Your task to perform on an android device: toggle pop-ups in chrome Image 0: 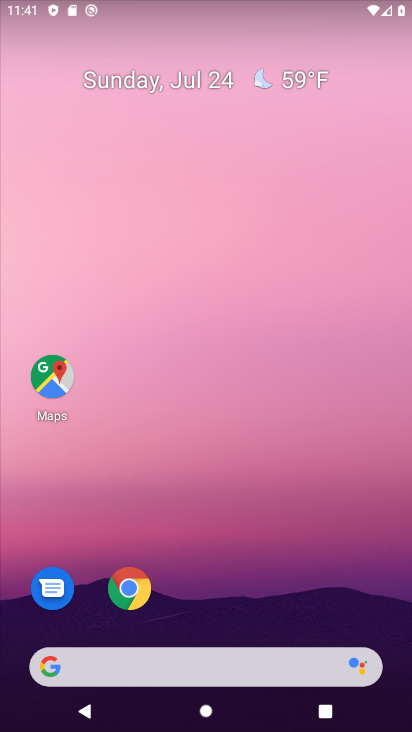
Step 0: drag from (393, 646) to (212, 7)
Your task to perform on an android device: toggle pop-ups in chrome Image 1: 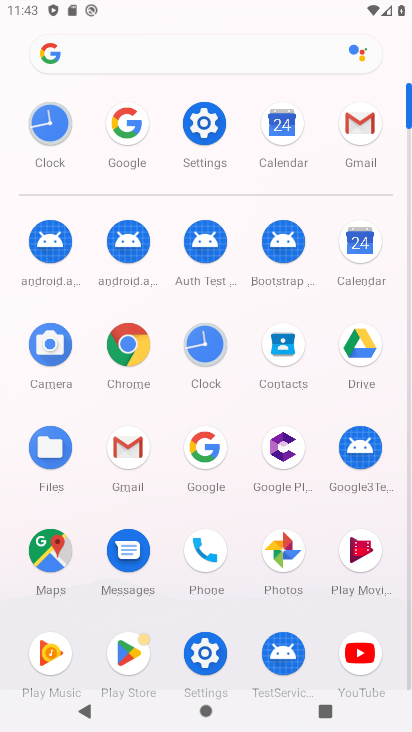
Step 1: click (127, 353)
Your task to perform on an android device: toggle pop-ups in chrome Image 2: 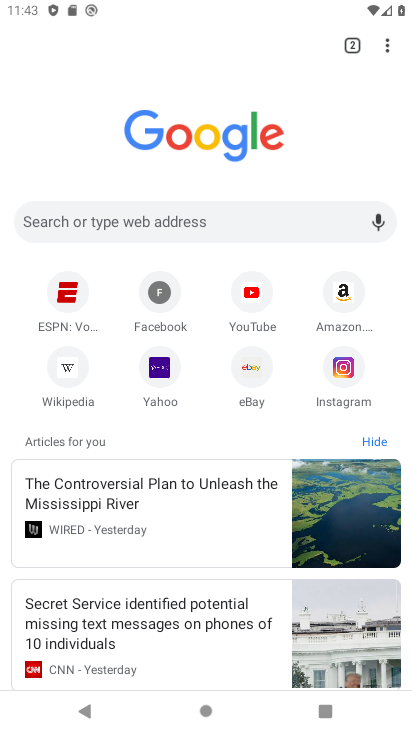
Step 2: click (387, 45)
Your task to perform on an android device: toggle pop-ups in chrome Image 3: 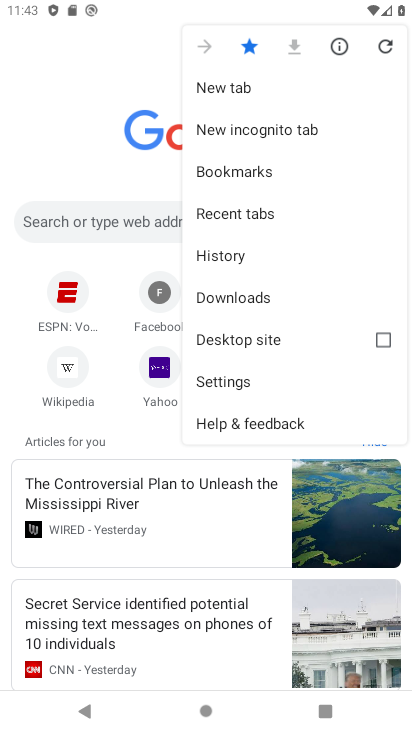
Step 3: click (241, 382)
Your task to perform on an android device: toggle pop-ups in chrome Image 4: 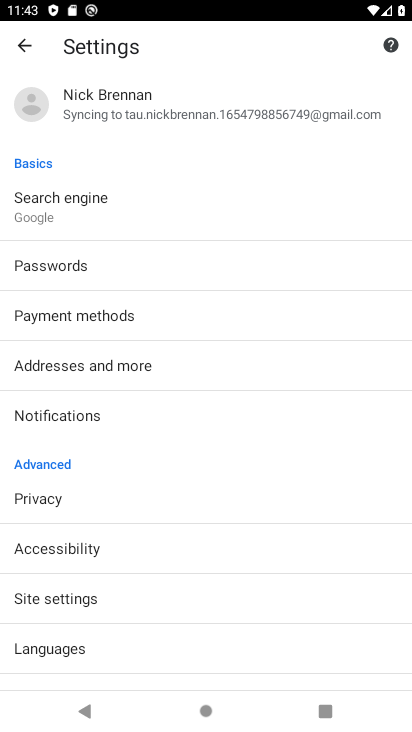
Step 4: click (104, 591)
Your task to perform on an android device: toggle pop-ups in chrome Image 5: 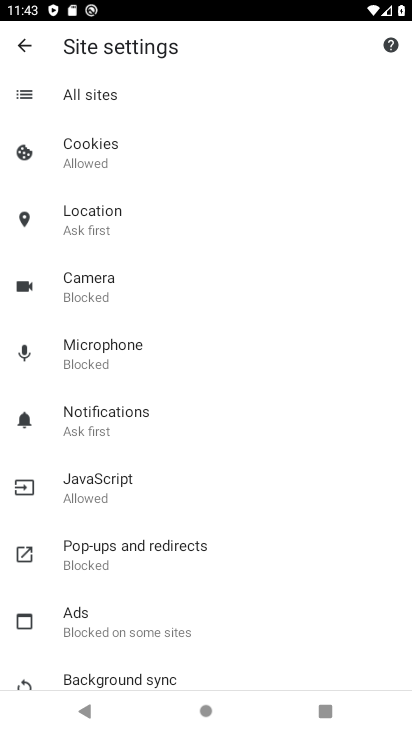
Step 5: click (131, 561)
Your task to perform on an android device: toggle pop-ups in chrome Image 6: 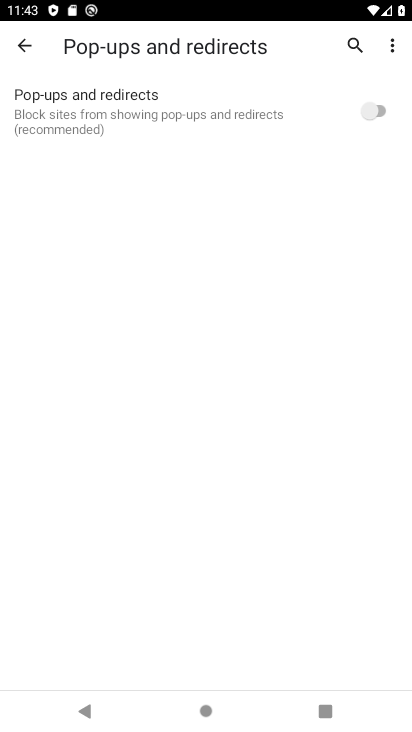
Step 6: click (362, 118)
Your task to perform on an android device: toggle pop-ups in chrome Image 7: 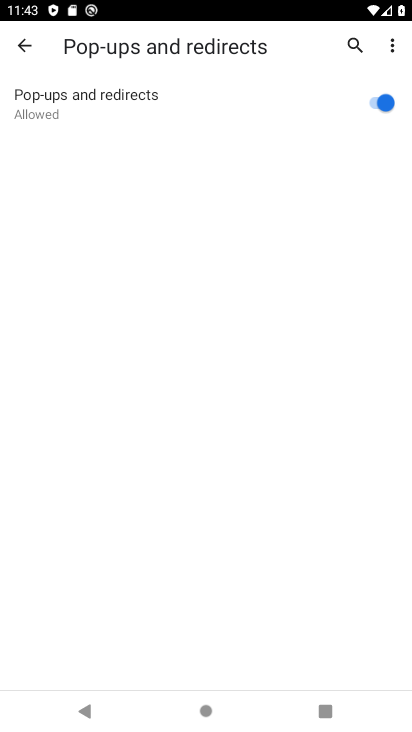
Step 7: task complete